Your task to perform on an android device: snooze an email in the gmail app Image 0: 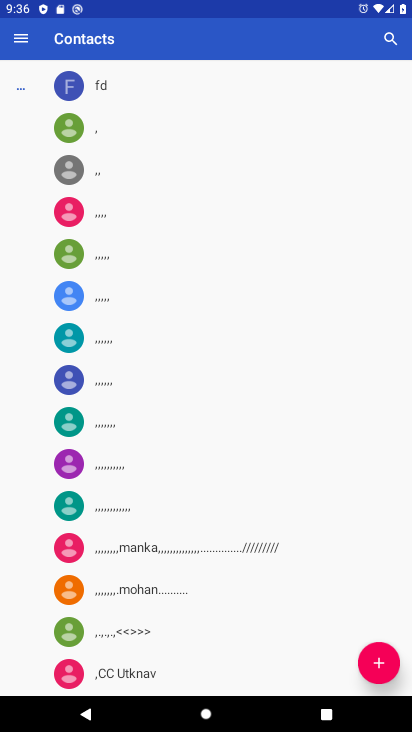
Step 0: press back button
Your task to perform on an android device: snooze an email in the gmail app Image 1: 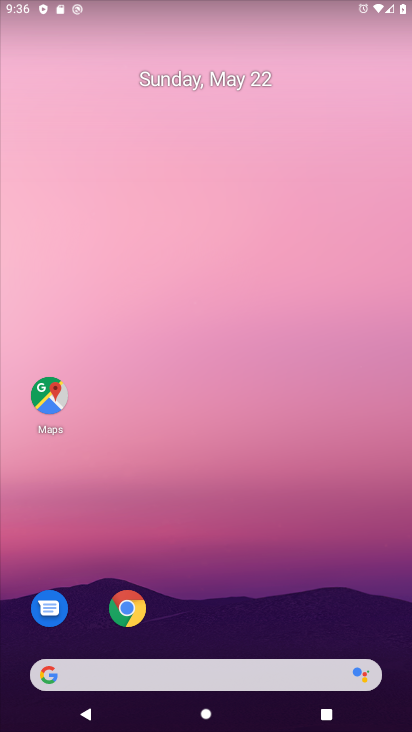
Step 1: drag from (240, 612) to (187, 46)
Your task to perform on an android device: snooze an email in the gmail app Image 2: 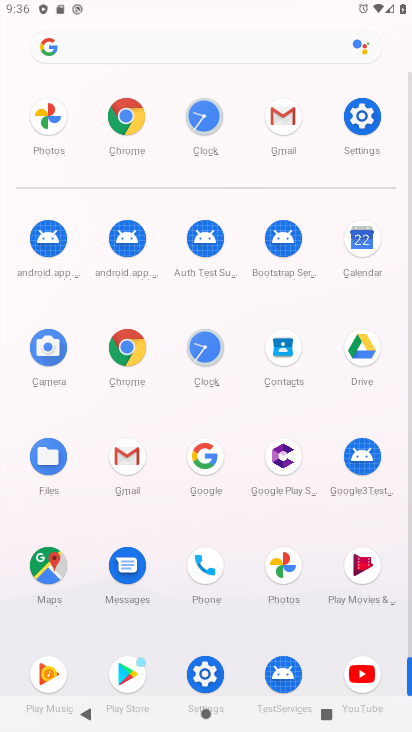
Step 2: drag from (8, 537) to (0, 270)
Your task to perform on an android device: snooze an email in the gmail app Image 3: 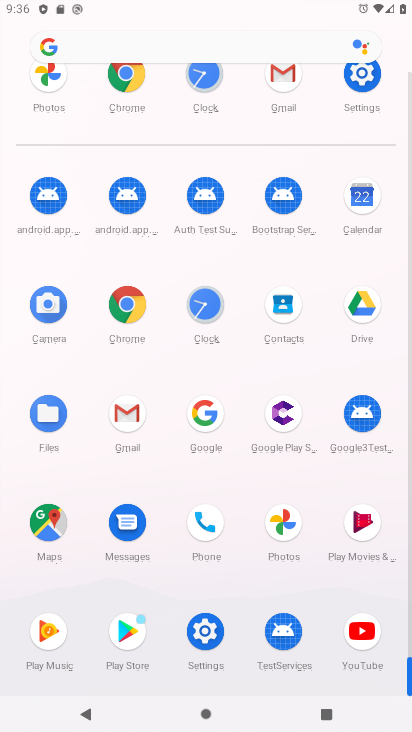
Step 3: click (126, 410)
Your task to perform on an android device: snooze an email in the gmail app Image 4: 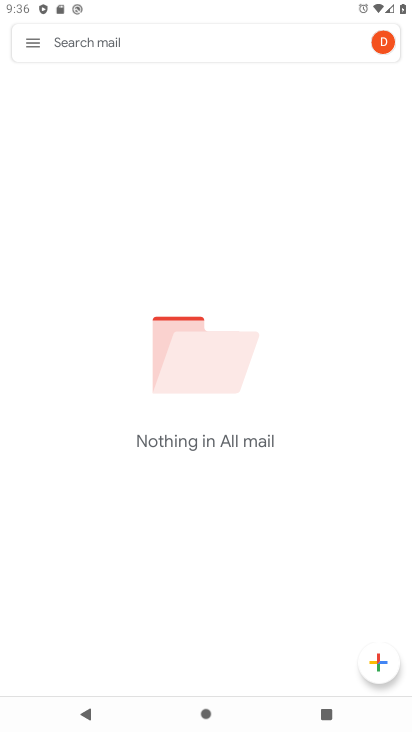
Step 4: click (30, 45)
Your task to perform on an android device: snooze an email in the gmail app Image 5: 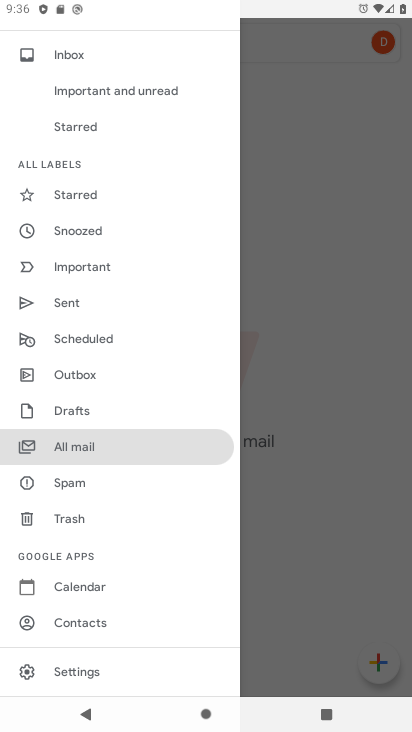
Step 5: drag from (148, 636) to (136, 171)
Your task to perform on an android device: snooze an email in the gmail app Image 6: 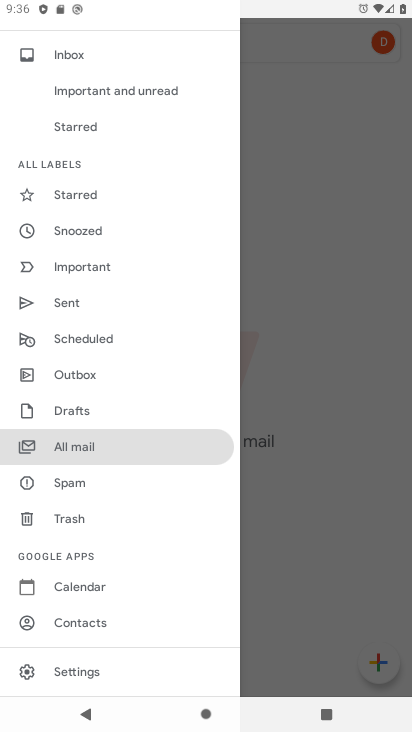
Step 6: drag from (135, 157) to (142, 507)
Your task to perform on an android device: snooze an email in the gmail app Image 7: 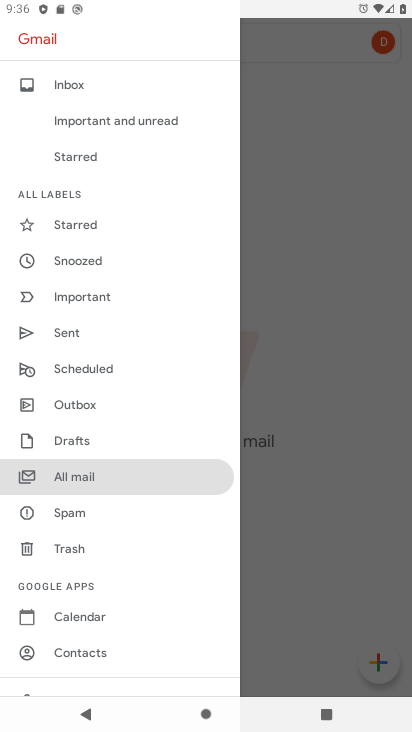
Step 7: click (90, 260)
Your task to perform on an android device: snooze an email in the gmail app Image 8: 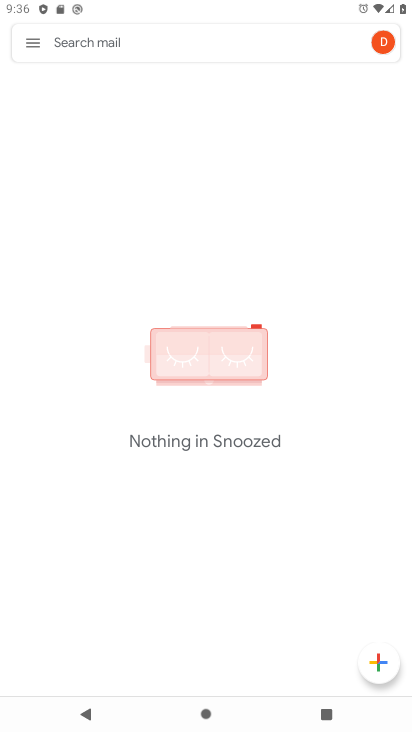
Step 8: click (33, 41)
Your task to perform on an android device: snooze an email in the gmail app Image 9: 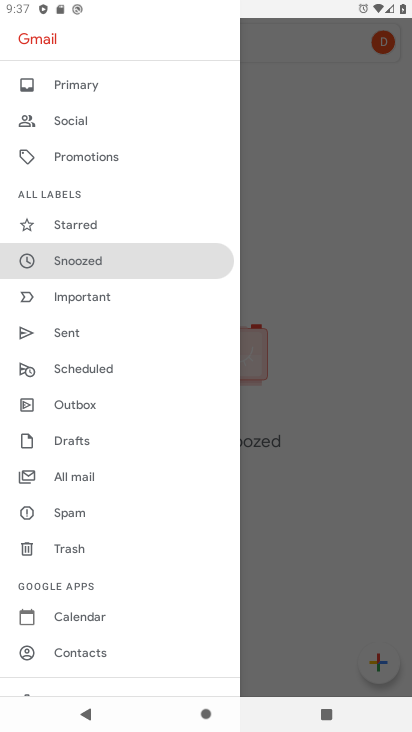
Step 9: task complete